Your task to perform on an android device: Turn off the flashlight Image 0: 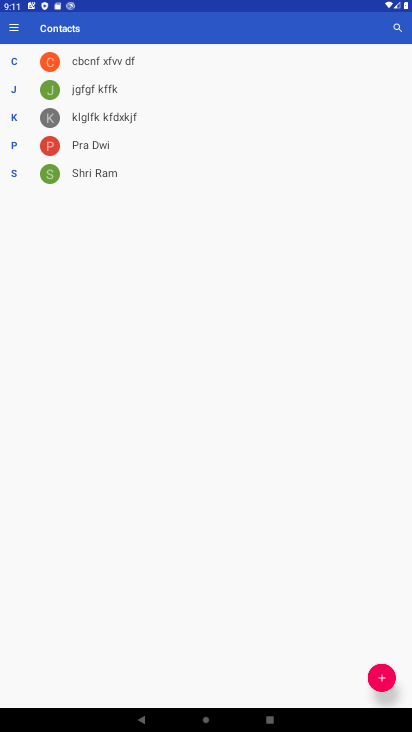
Step 0: press home button
Your task to perform on an android device: Turn off the flashlight Image 1: 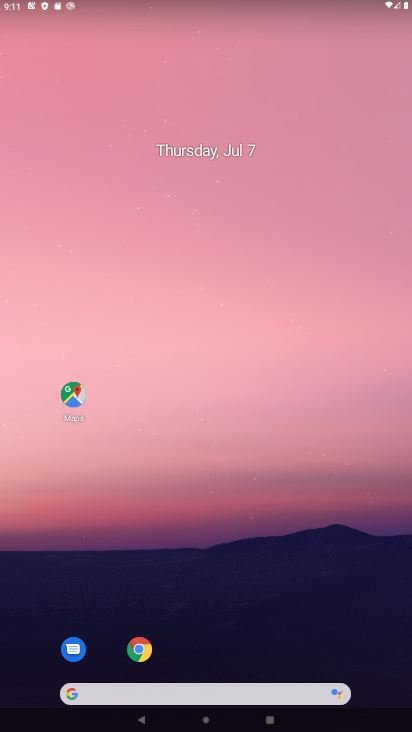
Step 1: drag from (229, 731) to (233, 258)
Your task to perform on an android device: Turn off the flashlight Image 2: 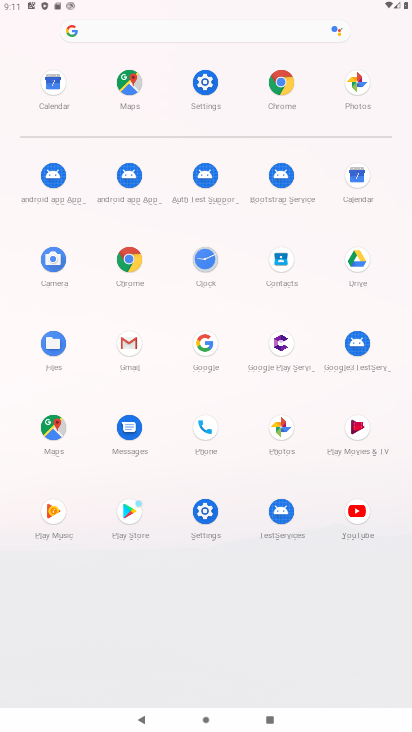
Step 2: click (211, 80)
Your task to perform on an android device: Turn off the flashlight Image 3: 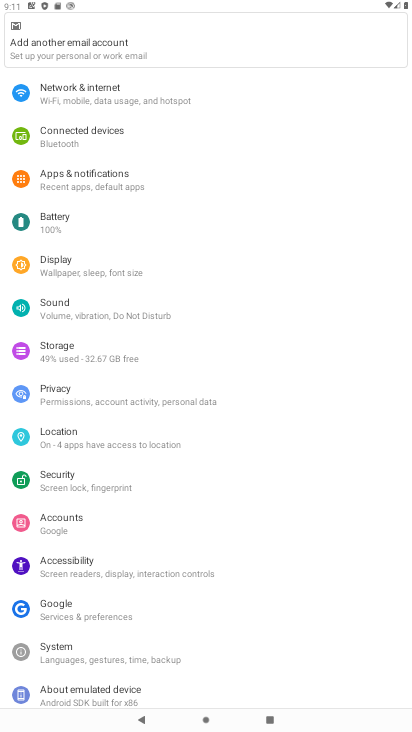
Step 3: task complete